Your task to perform on an android device: Find coffee shops on Maps Image 0: 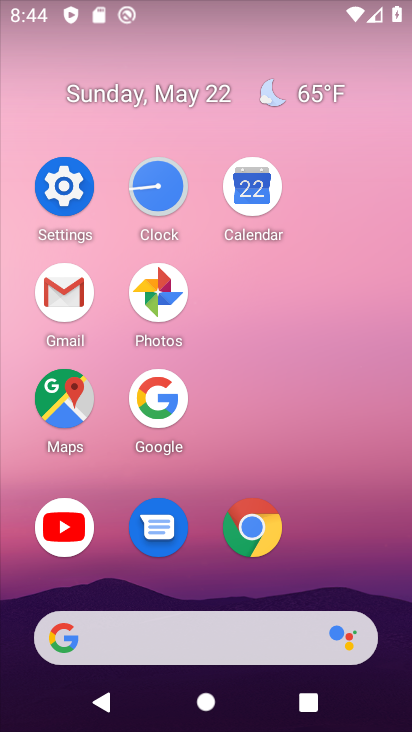
Step 0: click (64, 394)
Your task to perform on an android device: Find coffee shops on Maps Image 1: 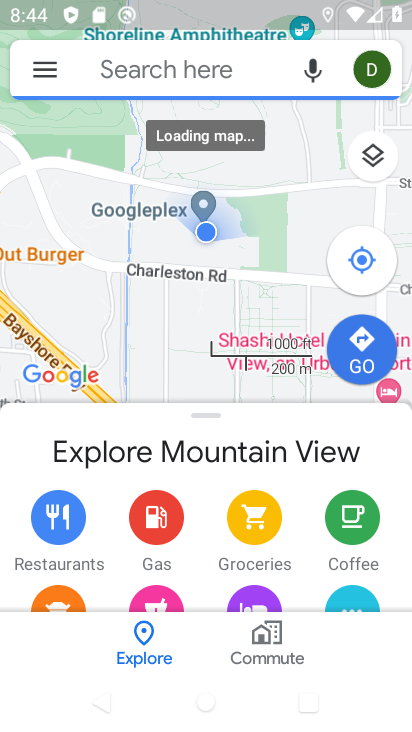
Step 1: click (226, 79)
Your task to perform on an android device: Find coffee shops on Maps Image 2: 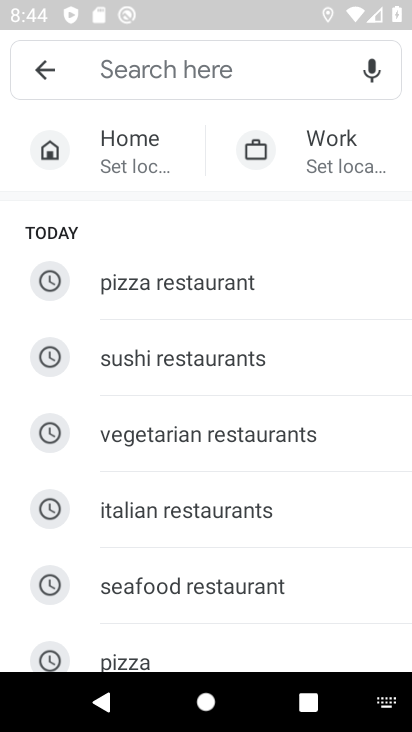
Step 2: type "coffee shops"
Your task to perform on an android device: Find coffee shops on Maps Image 3: 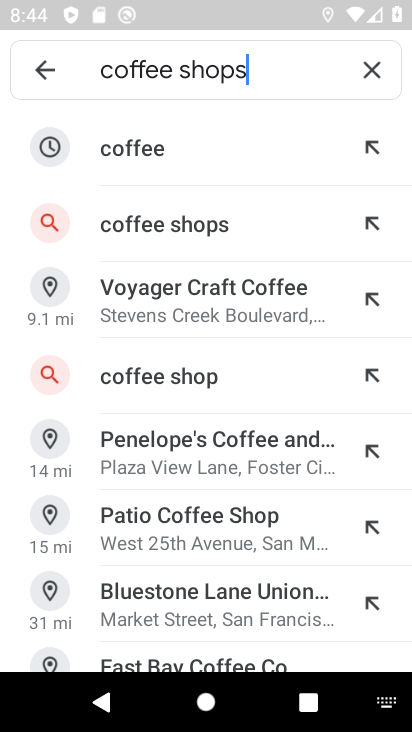
Step 3: task complete